Your task to perform on an android device: check google app version Image 0: 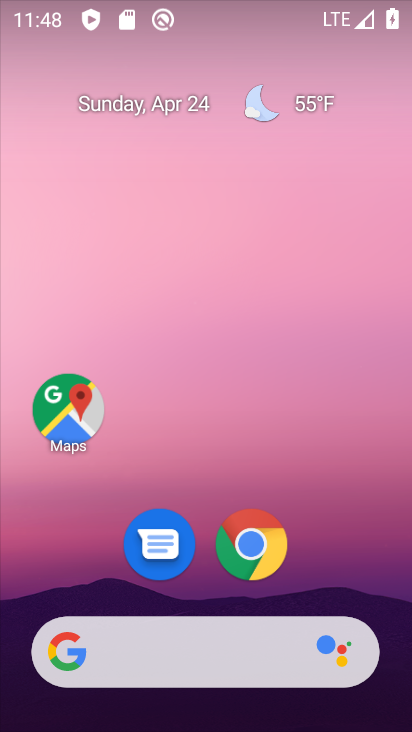
Step 0: drag from (313, 448) to (103, 100)
Your task to perform on an android device: check google app version Image 1: 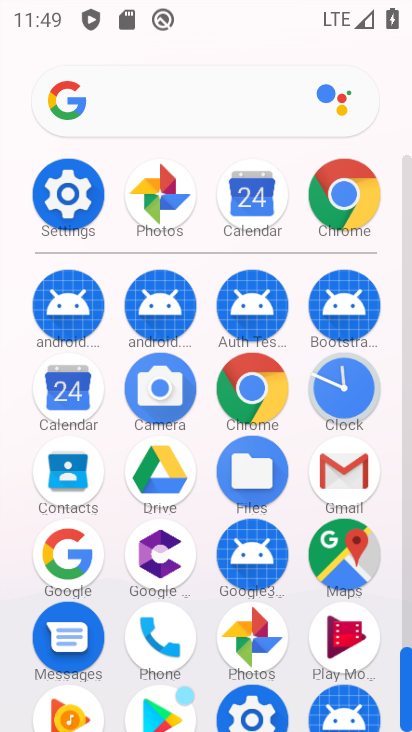
Step 1: click (84, 569)
Your task to perform on an android device: check google app version Image 2: 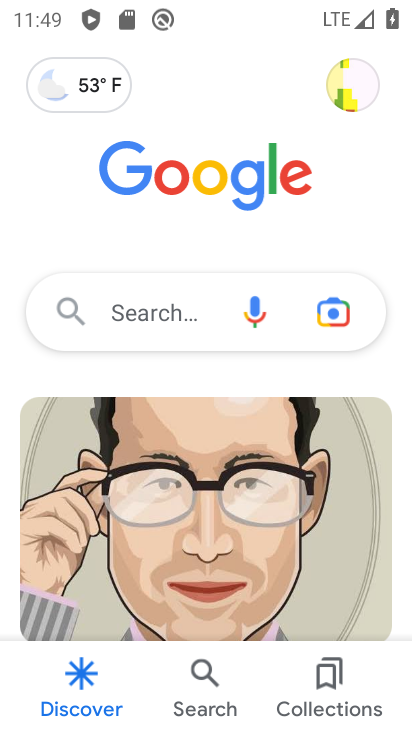
Step 2: click (363, 81)
Your task to perform on an android device: check google app version Image 3: 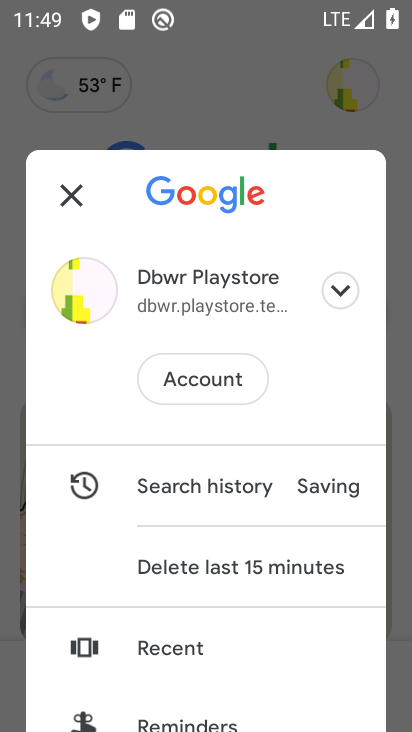
Step 3: drag from (187, 625) to (224, 230)
Your task to perform on an android device: check google app version Image 4: 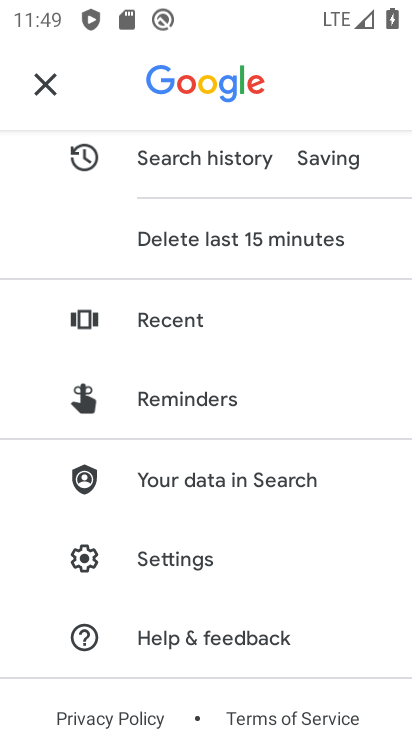
Step 4: click (155, 553)
Your task to perform on an android device: check google app version Image 5: 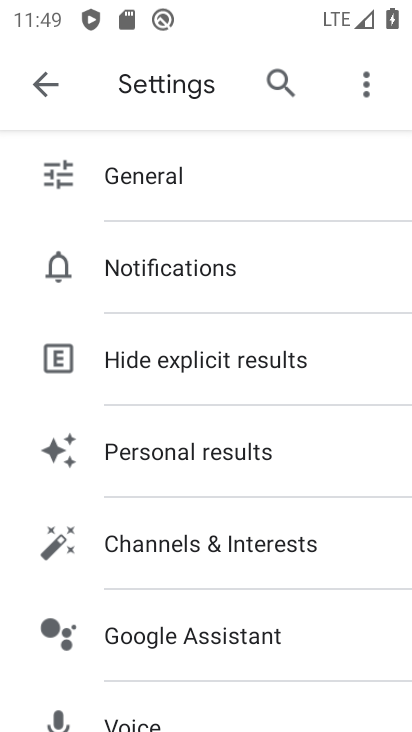
Step 5: drag from (178, 693) to (154, 242)
Your task to perform on an android device: check google app version Image 6: 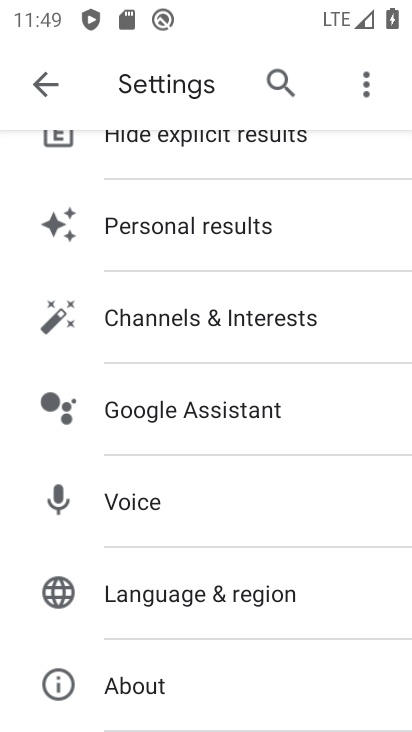
Step 6: click (107, 674)
Your task to perform on an android device: check google app version Image 7: 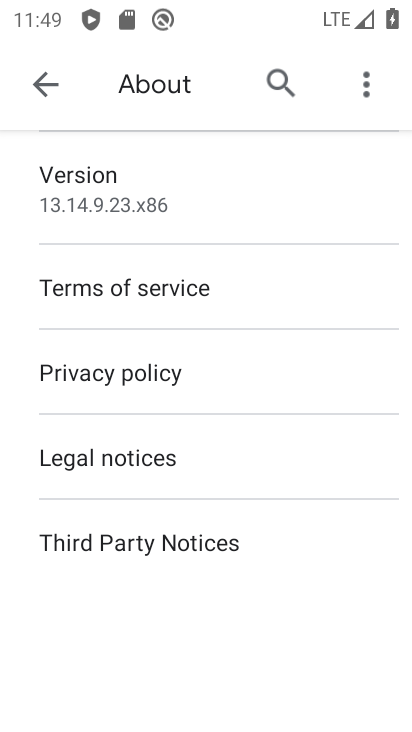
Step 7: task complete